Your task to perform on an android device: show emergency info Image 0: 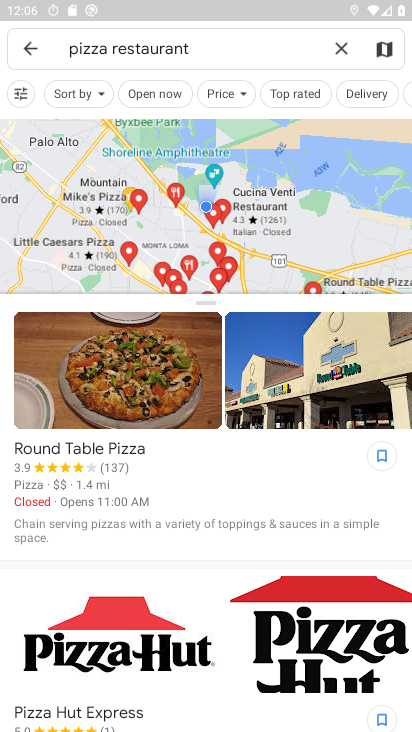
Step 0: press home button
Your task to perform on an android device: show emergency info Image 1: 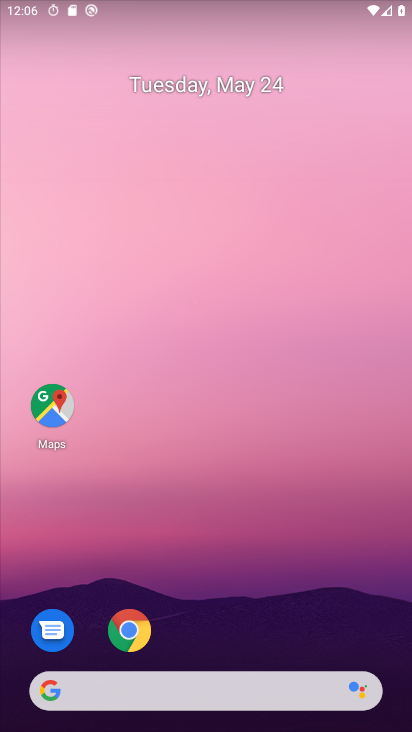
Step 1: drag from (223, 624) to (288, 136)
Your task to perform on an android device: show emergency info Image 2: 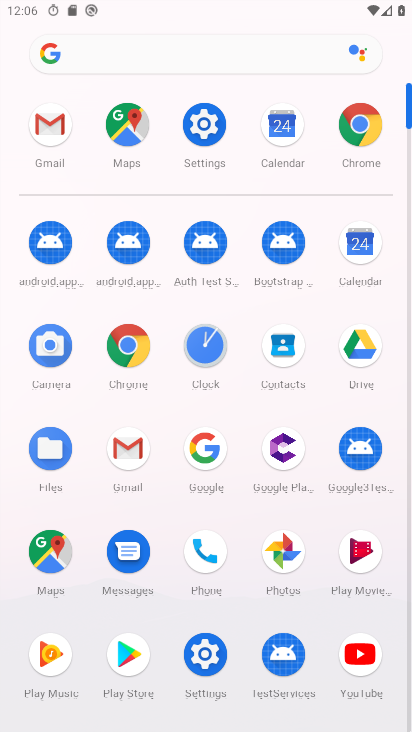
Step 2: click (210, 645)
Your task to perform on an android device: show emergency info Image 3: 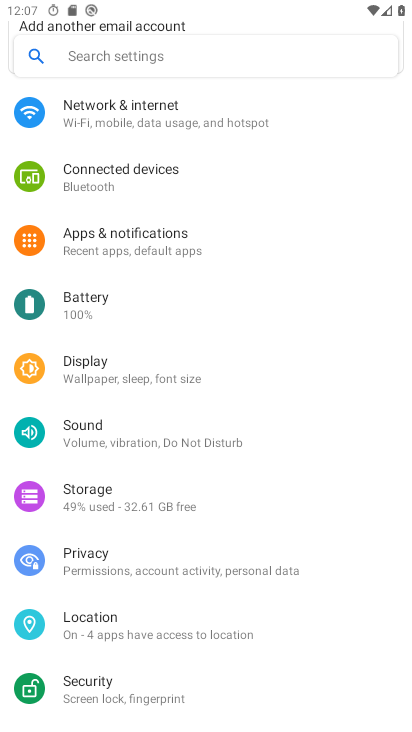
Step 3: drag from (141, 613) to (195, 267)
Your task to perform on an android device: show emergency info Image 4: 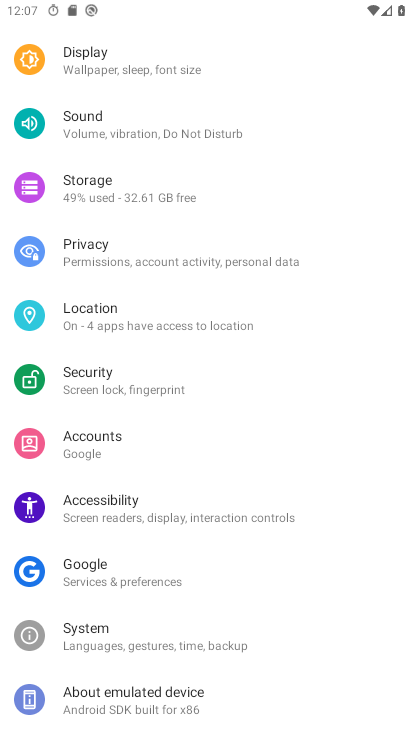
Step 4: click (128, 703)
Your task to perform on an android device: show emergency info Image 5: 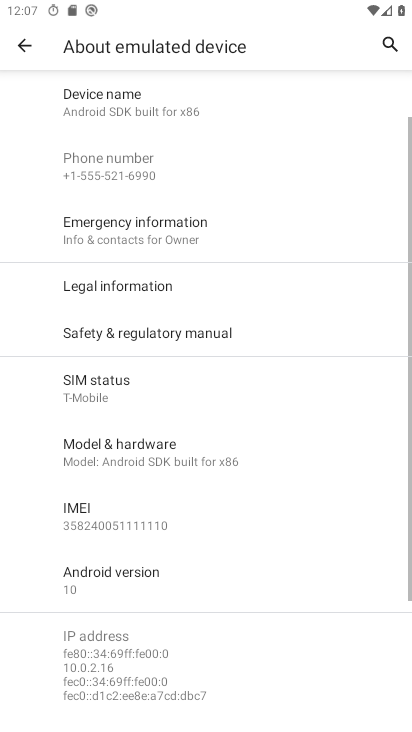
Step 5: click (160, 238)
Your task to perform on an android device: show emergency info Image 6: 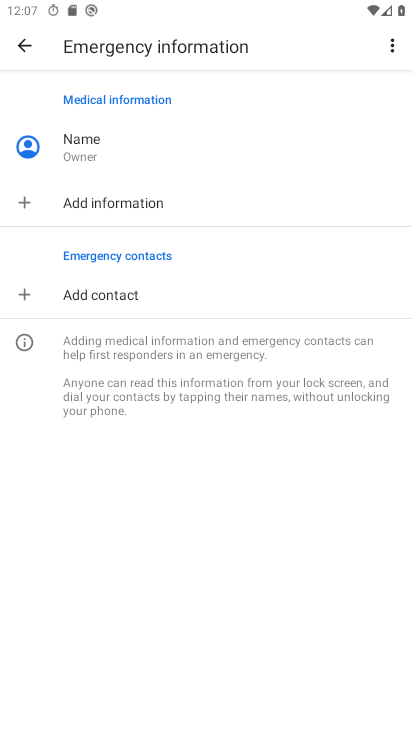
Step 6: task complete